Your task to perform on an android device: Open location settings Image 0: 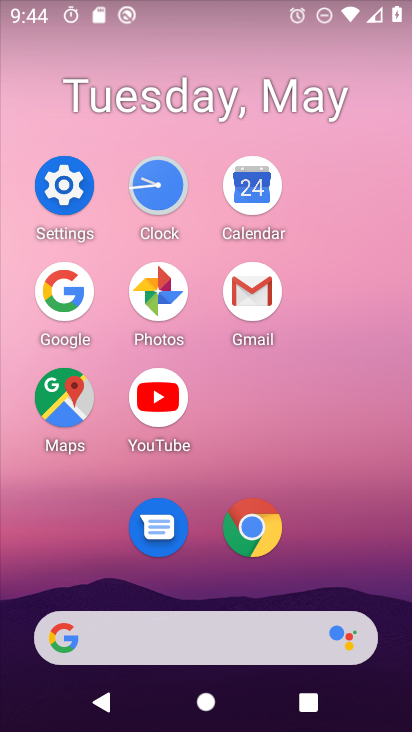
Step 0: click (46, 189)
Your task to perform on an android device: Open location settings Image 1: 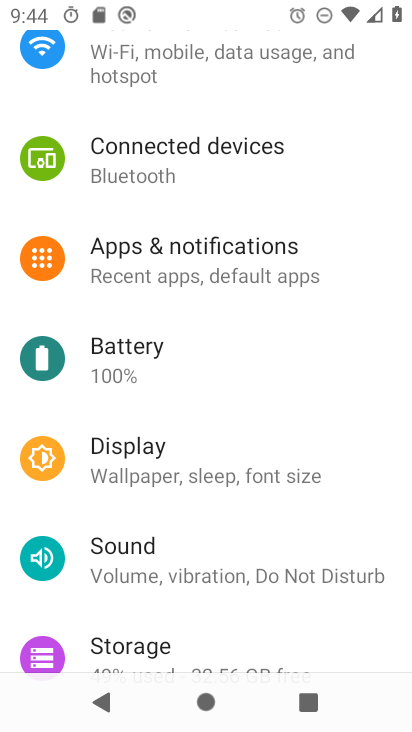
Step 1: drag from (250, 572) to (284, 216)
Your task to perform on an android device: Open location settings Image 2: 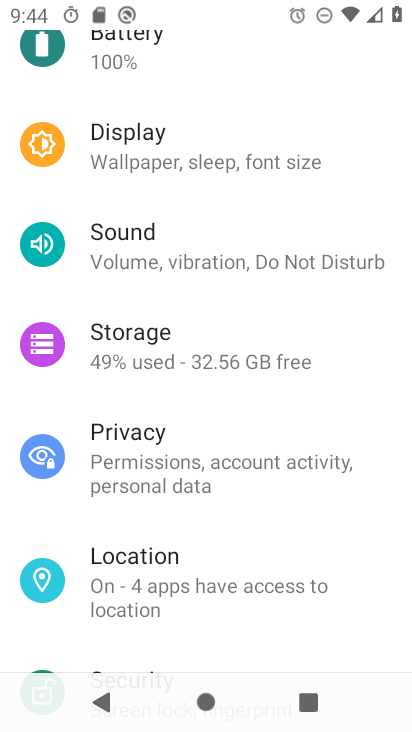
Step 2: click (169, 595)
Your task to perform on an android device: Open location settings Image 3: 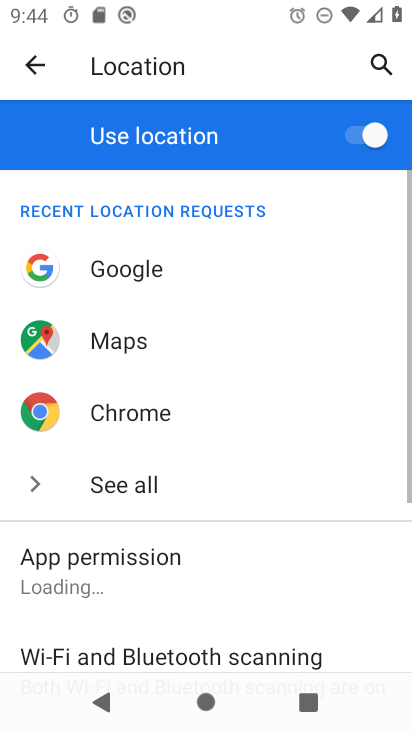
Step 3: task complete